Your task to perform on an android device: Search for Italian restaurants on Maps Image 0: 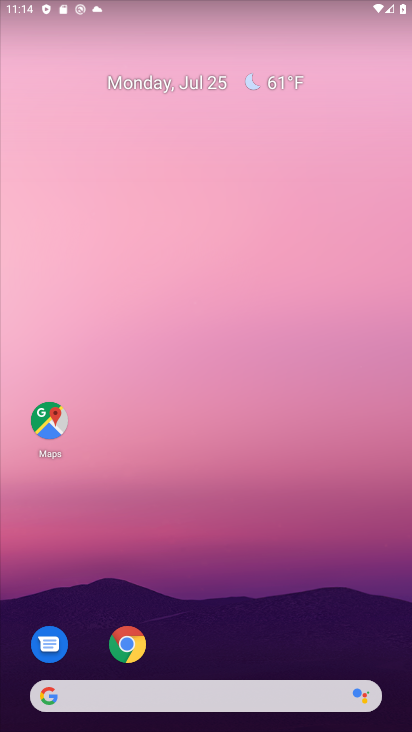
Step 0: drag from (184, 574) to (189, 209)
Your task to perform on an android device: Search for Italian restaurants on Maps Image 1: 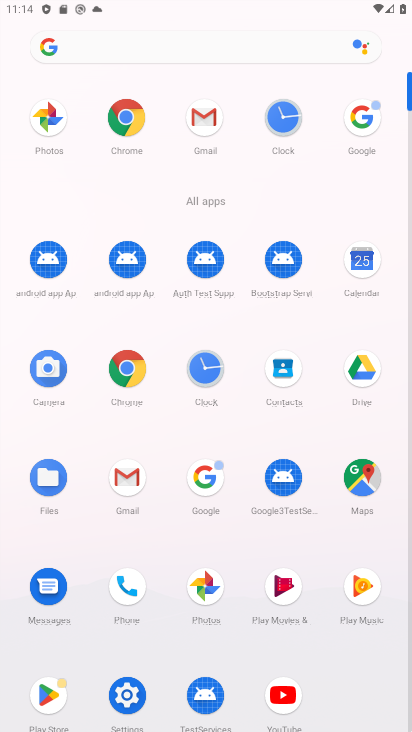
Step 1: click (354, 472)
Your task to perform on an android device: Search for Italian restaurants on Maps Image 2: 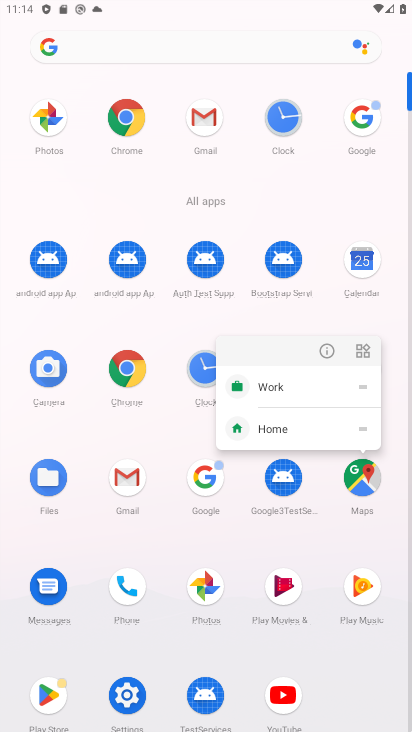
Step 2: click (361, 470)
Your task to perform on an android device: Search for Italian restaurants on Maps Image 3: 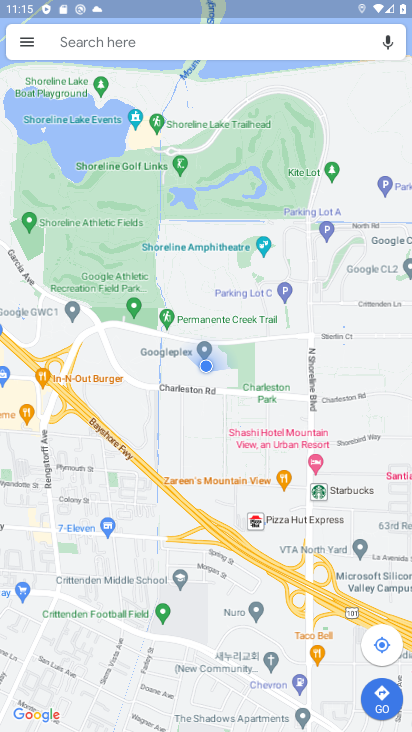
Step 3: click (222, 43)
Your task to perform on an android device: Search for Italian restaurants on Maps Image 4: 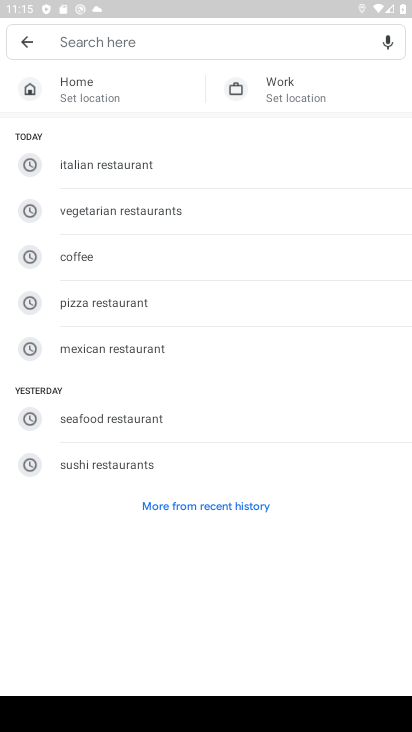
Step 4: click (123, 157)
Your task to perform on an android device: Search for Italian restaurants on Maps Image 5: 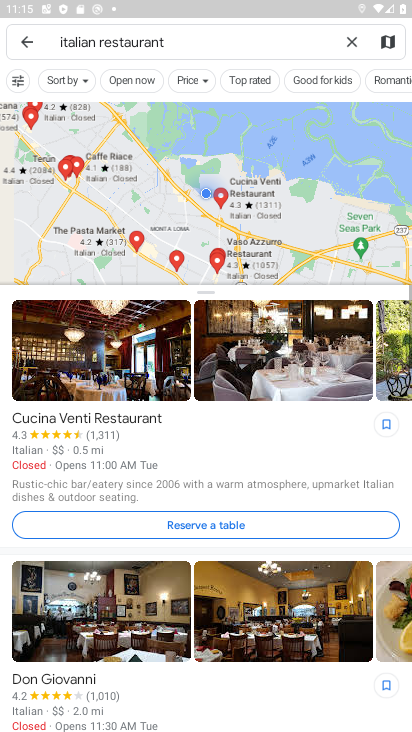
Step 5: task complete